Your task to perform on an android device: Show me the alarms in the clock app Image 0: 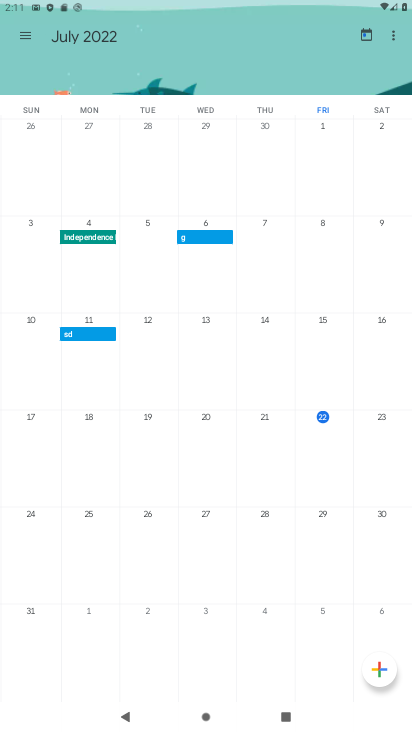
Step 0: press home button
Your task to perform on an android device: Show me the alarms in the clock app Image 1: 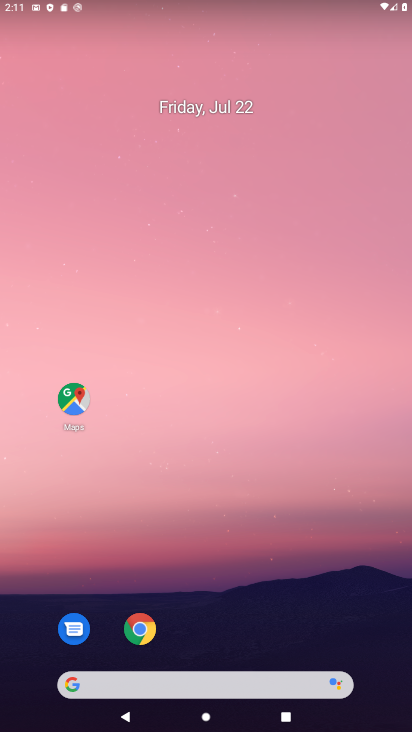
Step 1: drag from (151, 624) to (124, 230)
Your task to perform on an android device: Show me the alarms in the clock app Image 2: 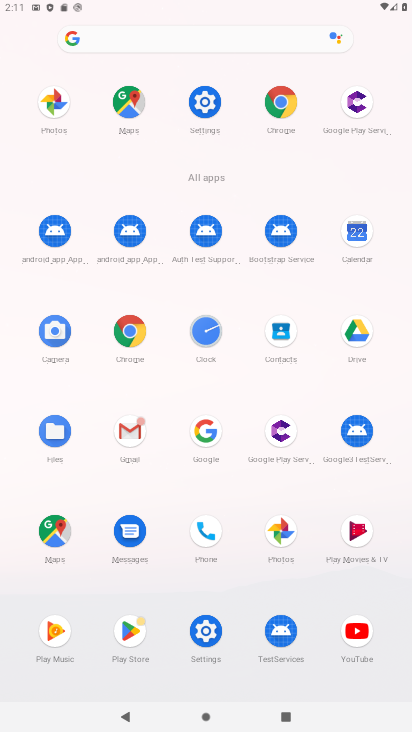
Step 2: click (207, 311)
Your task to perform on an android device: Show me the alarms in the clock app Image 3: 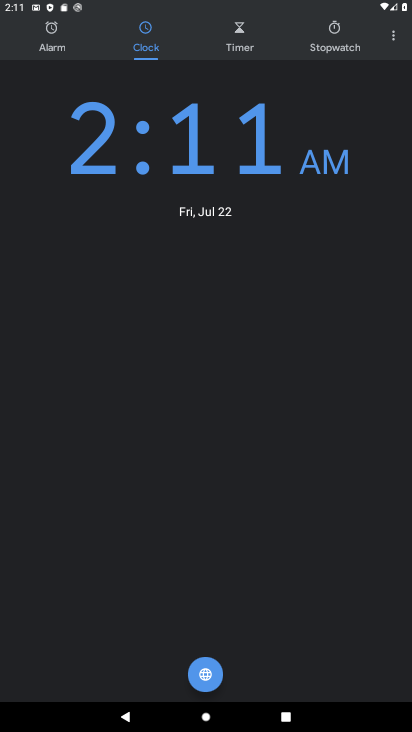
Step 3: click (50, 46)
Your task to perform on an android device: Show me the alarms in the clock app Image 4: 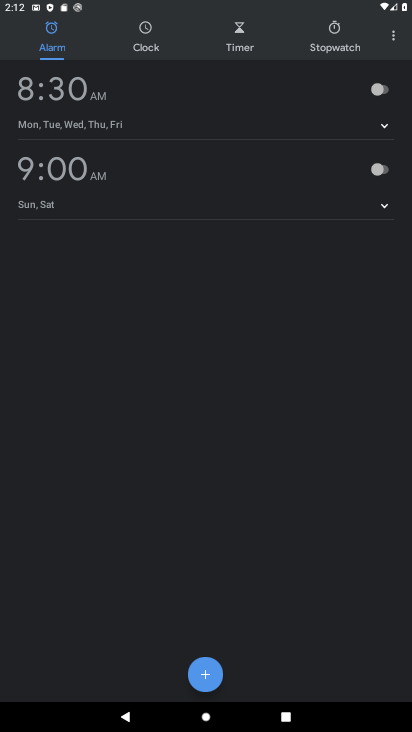
Step 4: task complete